Your task to perform on an android device: turn off translation in the chrome app Image 0: 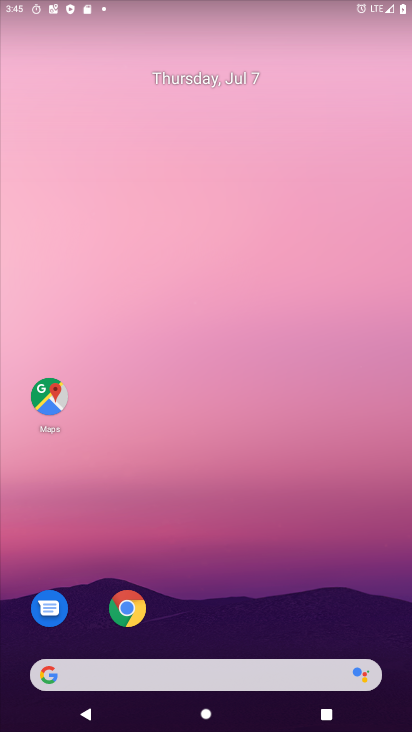
Step 0: click (125, 606)
Your task to perform on an android device: turn off translation in the chrome app Image 1: 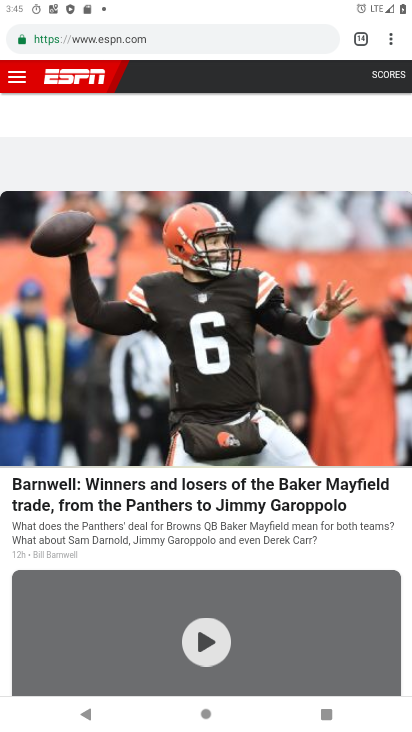
Step 1: click (392, 43)
Your task to perform on an android device: turn off translation in the chrome app Image 2: 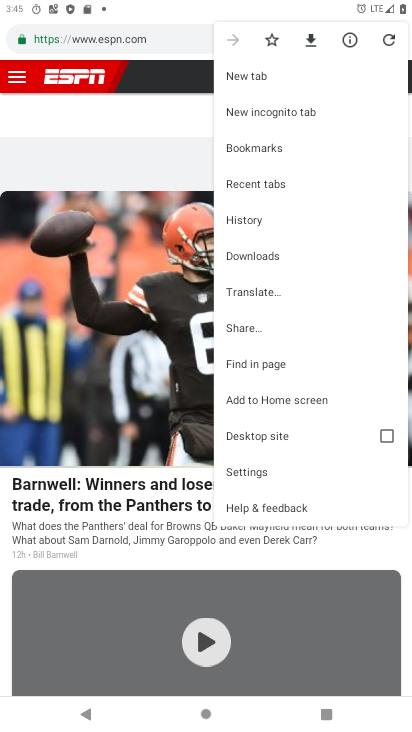
Step 2: click (248, 468)
Your task to perform on an android device: turn off translation in the chrome app Image 3: 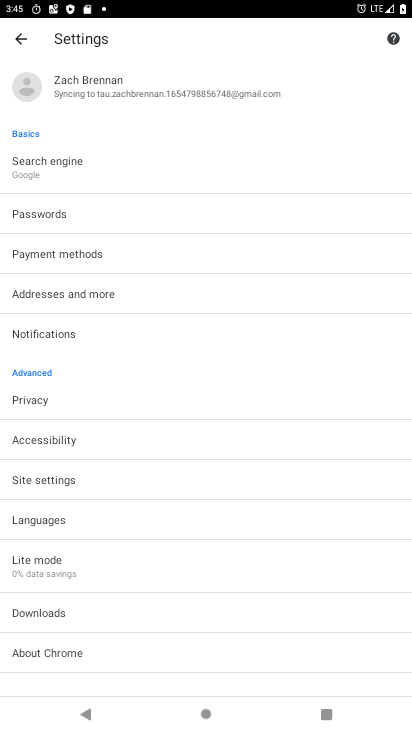
Step 3: click (50, 524)
Your task to perform on an android device: turn off translation in the chrome app Image 4: 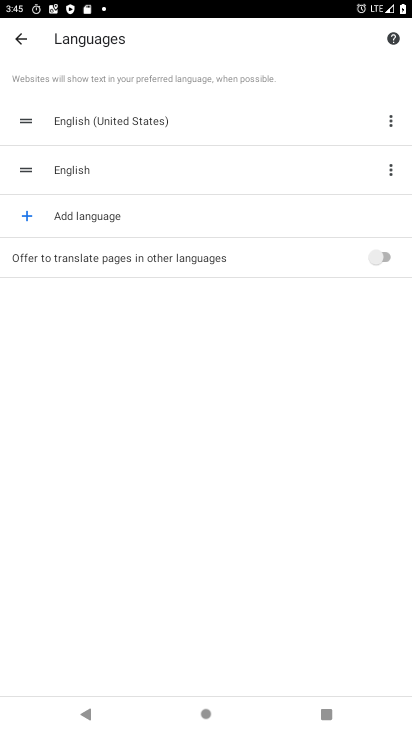
Step 4: task complete